Your task to perform on an android device: make emails show in primary in the gmail app Image 0: 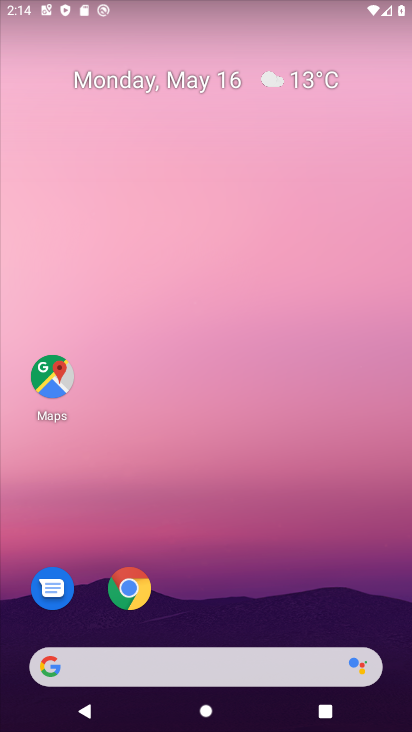
Step 0: drag from (242, 608) to (304, 7)
Your task to perform on an android device: make emails show in primary in the gmail app Image 1: 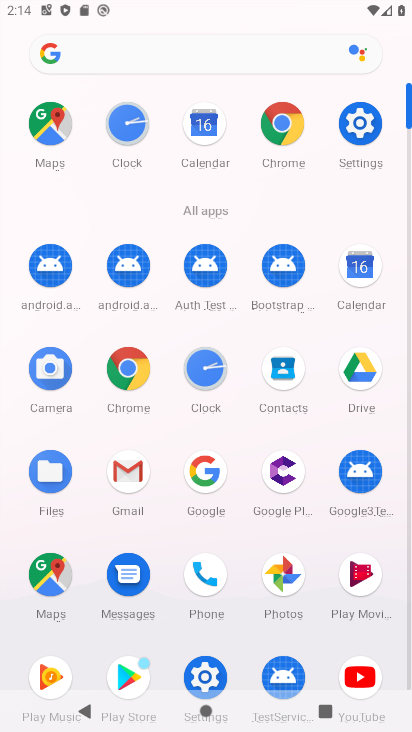
Step 1: click (120, 468)
Your task to perform on an android device: make emails show in primary in the gmail app Image 2: 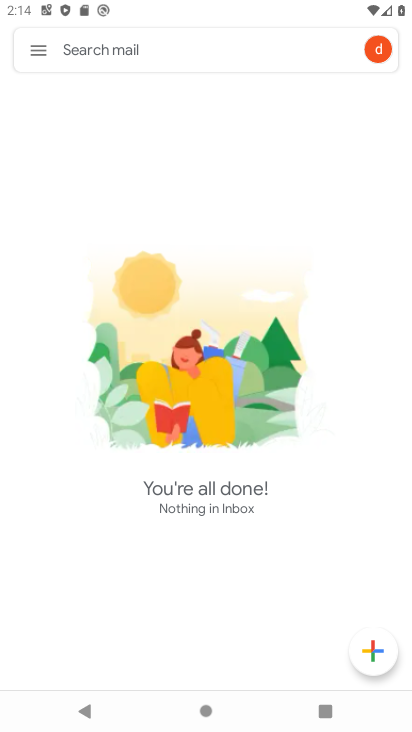
Step 2: click (47, 48)
Your task to perform on an android device: make emails show in primary in the gmail app Image 3: 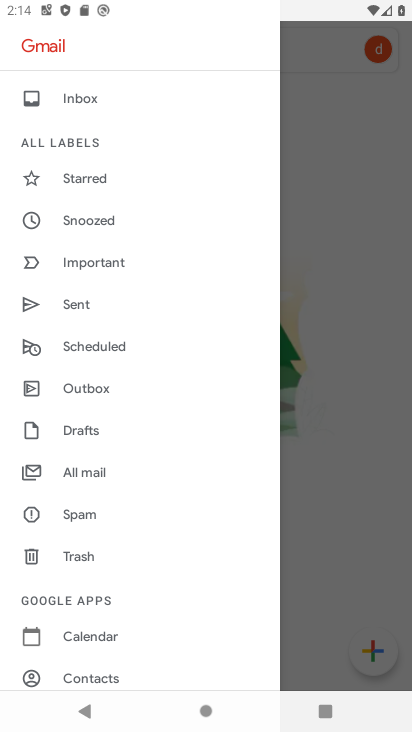
Step 3: drag from (141, 82) to (143, 487)
Your task to perform on an android device: make emails show in primary in the gmail app Image 4: 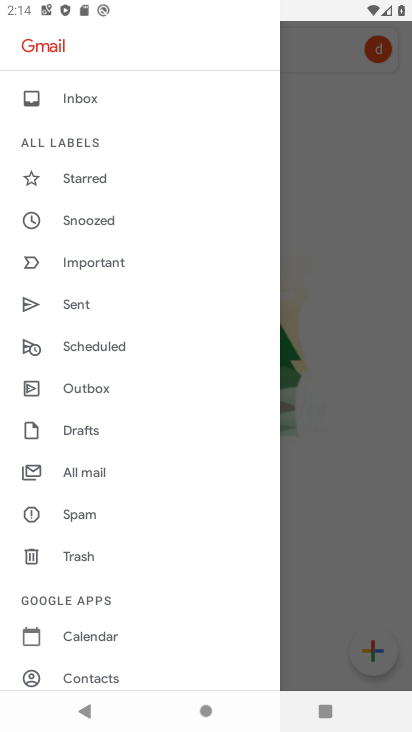
Step 4: drag from (147, 178) to (151, 579)
Your task to perform on an android device: make emails show in primary in the gmail app Image 5: 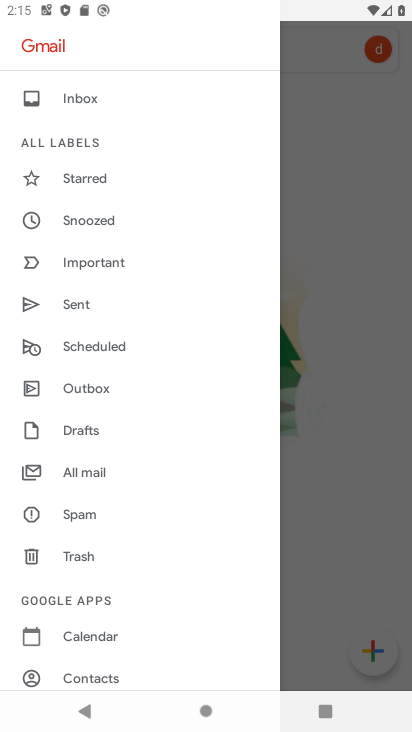
Step 5: drag from (72, 676) to (122, 152)
Your task to perform on an android device: make emails show in primary in the gmail app Image 6: 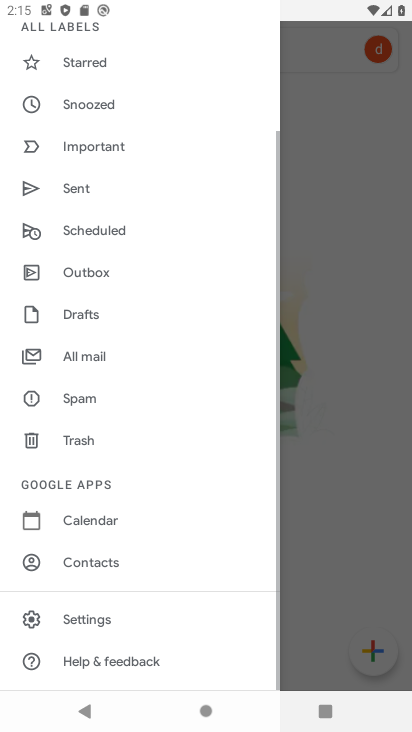
Step 6: click (122, 621)
Your task to perform on an android device: make emails show in primary in the gmail app Image 7: 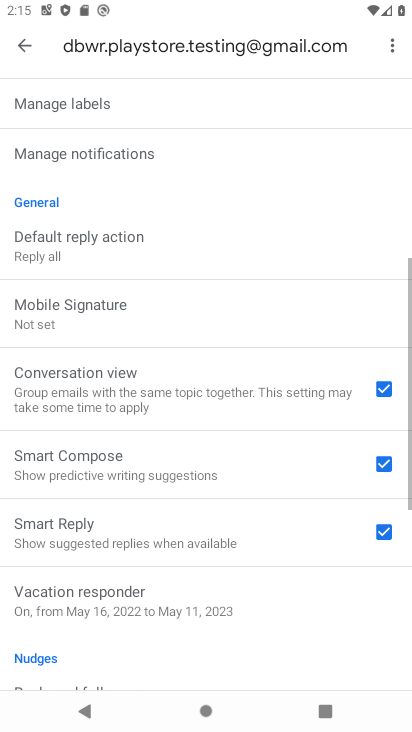
Step 7: drag from (147, 246) to (190, 616)
Your task to perform on an android device: make emails show in primary in the gmail app Image 8: 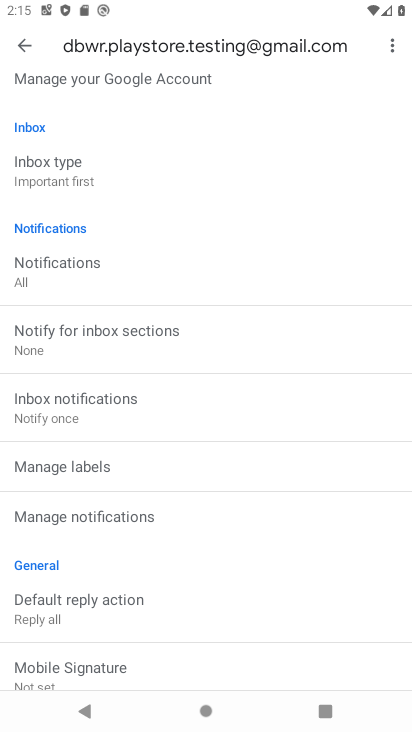
Step 8: click (104, 175)
Your task to perform on an android device: make emails show in primary in the gmail app Image 9: 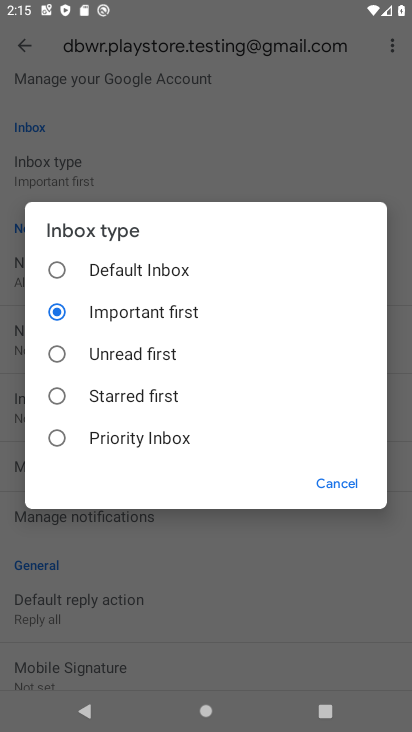
Step 9: click (110, 270)
Your task to perform on an android device: make emails show in primary in the gmail app Image 10: 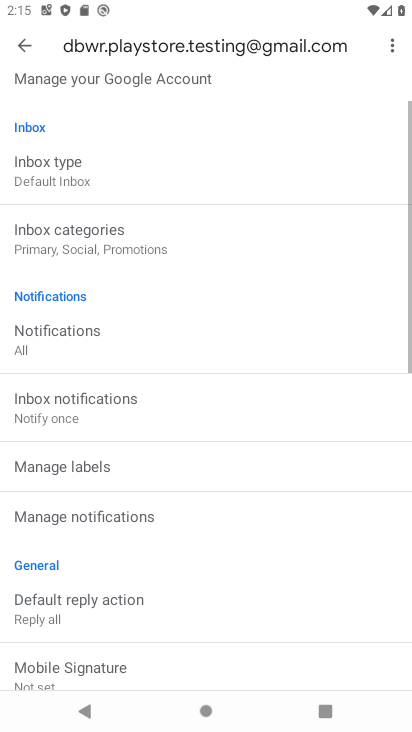
Step 10: task complete